Your task to perform on an android device: toggle pop-ups in chrome Image 0: 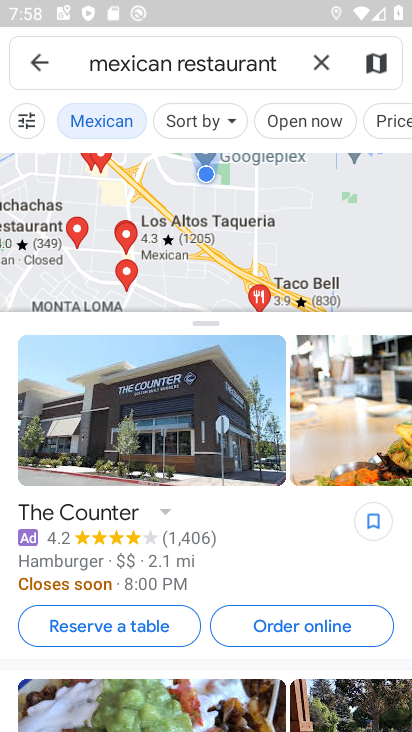
Step 0: press home button
Your task to perform on an android device: toggle pop-ups in chrome Image 1: 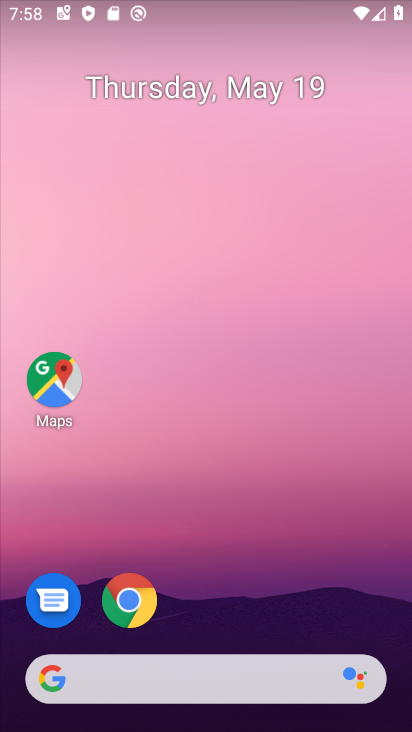
Step 1: click (136, 610)
Your task to perform on an android device: toggle pop-ups in chrome Image 2: 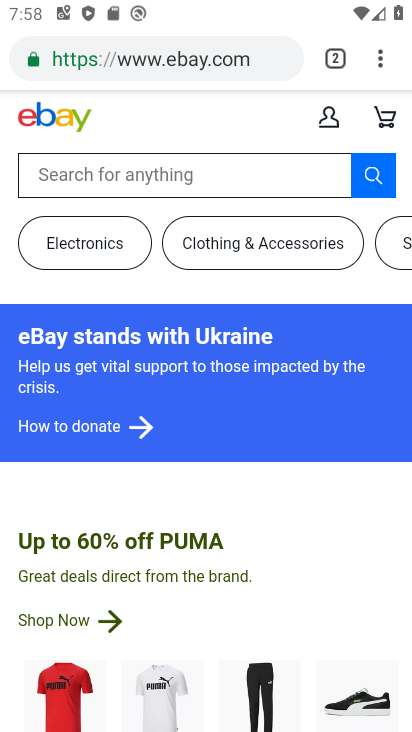
Step 2: click (379, 61)
Your task to perform on an android device: toggle pop-ups in chrome Image 3: 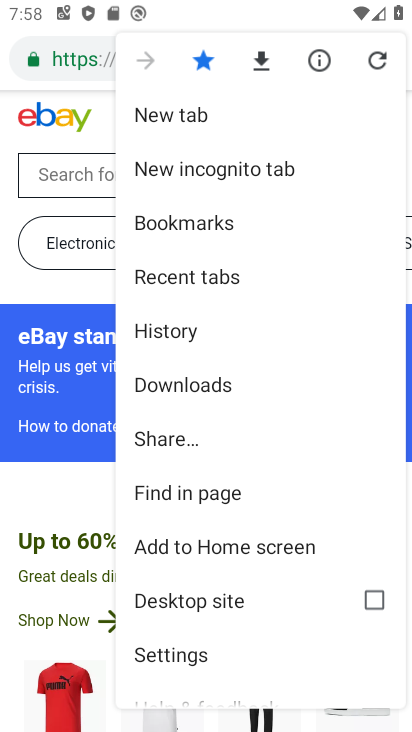
Step 3: click (190, 664)
Your task to perform on an android device: toggle pop-ups in chrome Image 4: 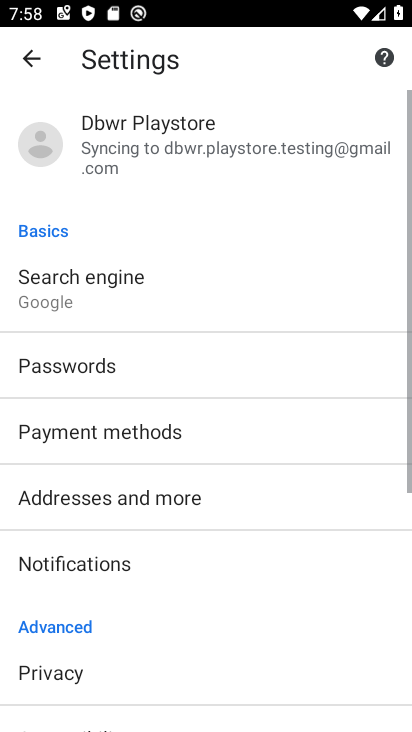
Step 4: drag from (212, 605) to (258, 89)
Your task to perform on an android device: toggle pop-ups in chrome Image 5: 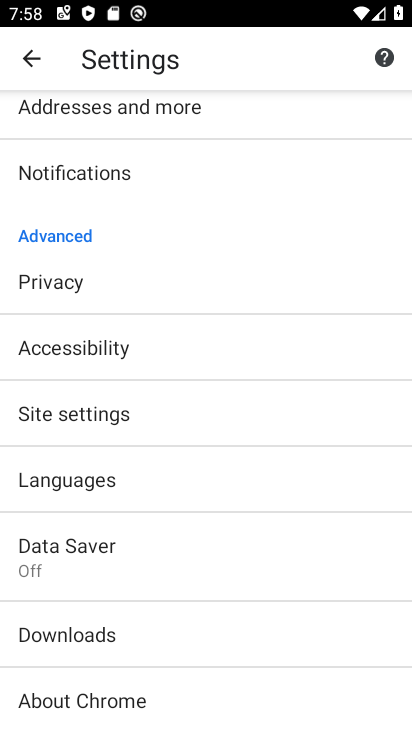
Step 5: click (98, 417)
Your task to perform on an android device: toggle pop-ups in chrome Image 6: 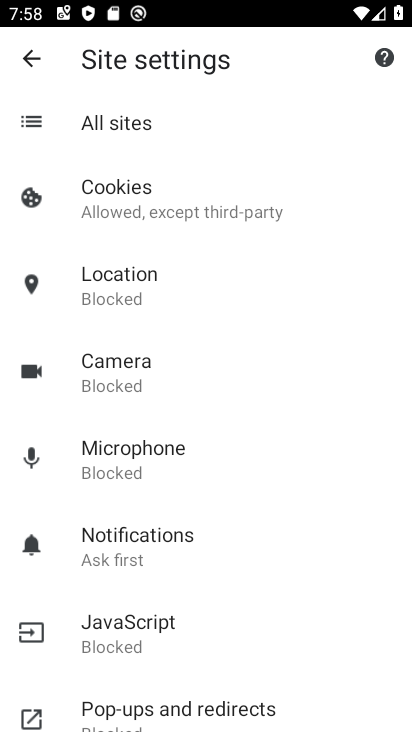
Step 6: click (146, 710)
Your task to perform on an android device: toggle pop-ups in chrome Image 7: 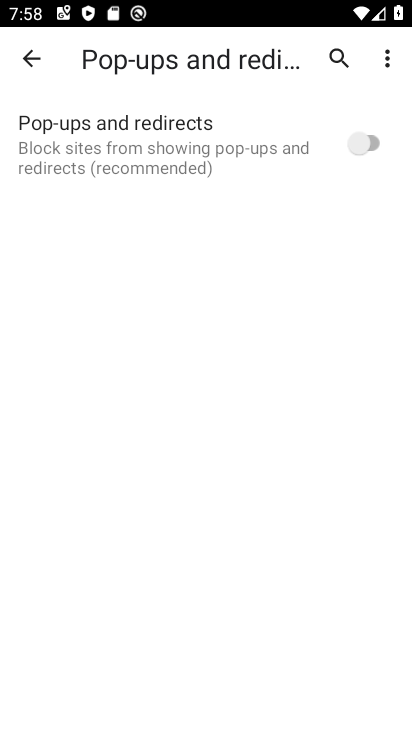
Step 7: click (366, 137)
Your task to perform on an android device: toggle pop-ups in chrome Image 8: 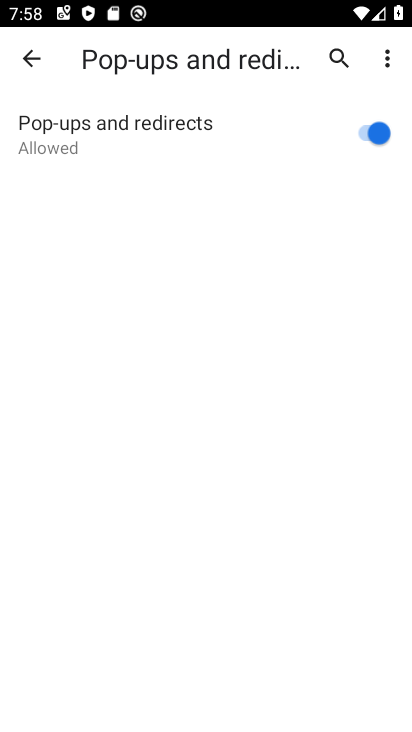
Step 8: task complete